Your task to perform on an android device: open a bookmark in the chrome app Image 0: 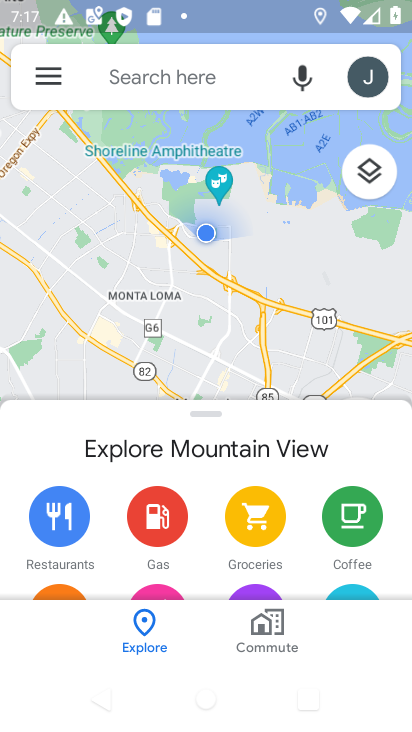
Step 0: press back button
Your task to perform on an android device: open a bookmark in the chrome app Image 1: 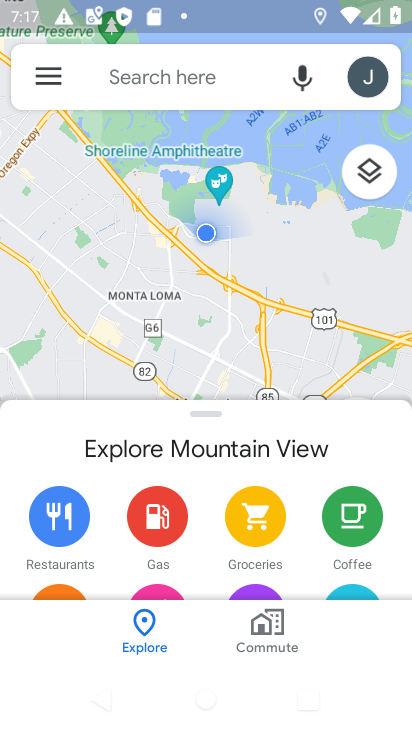
Step 1: press home button
Your task to perform on an android device: open a bookmark in the chrome app Image 2: 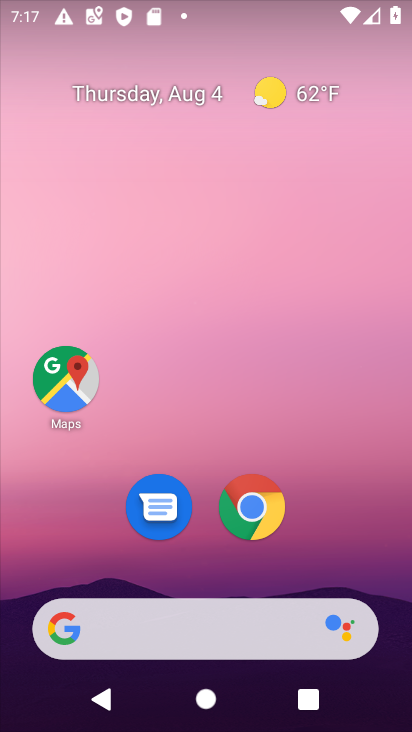
Step 2: drag from (382, 604) to (211, 23)
Your task to perform on an android device: open a bookmark in the chrome app Image 3: 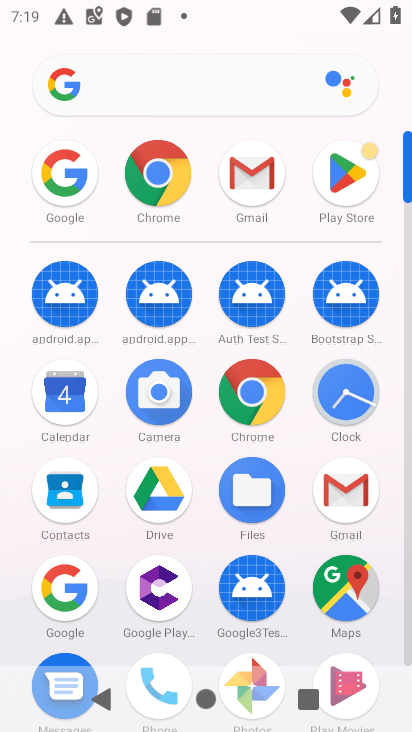
Step 3: click (242, 402)
Your task to perform on an android device: open a bookmark in the chrome app Image 4: 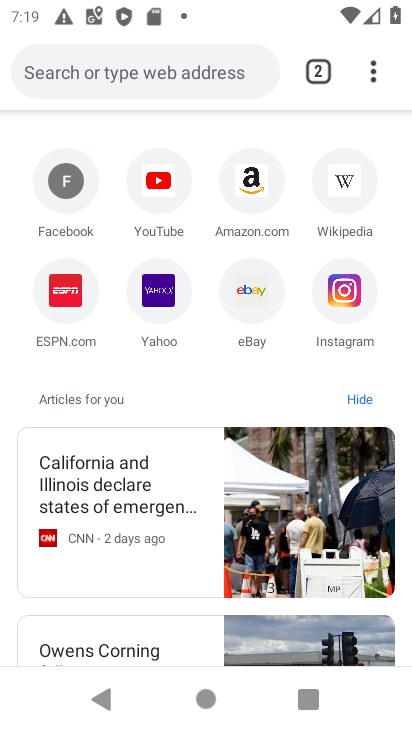
Step 4: click (378, 66)
Your task to perform on an android device: open a bookmark in the chrome app Image 5: 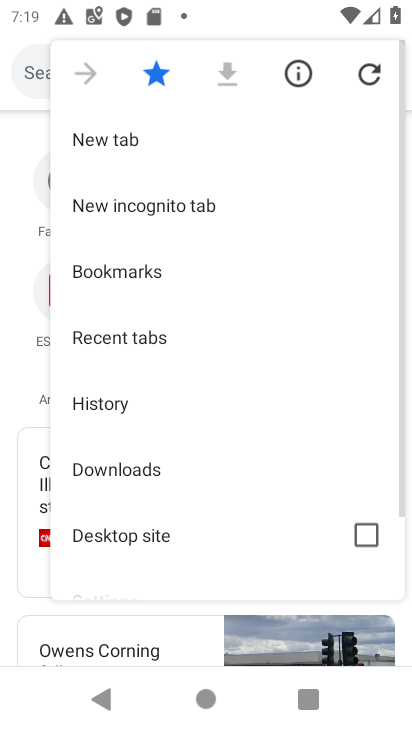
Step 5: click (112, 286)
Your task to perform on an android device: open a bookmark in the chrome app Image 6: 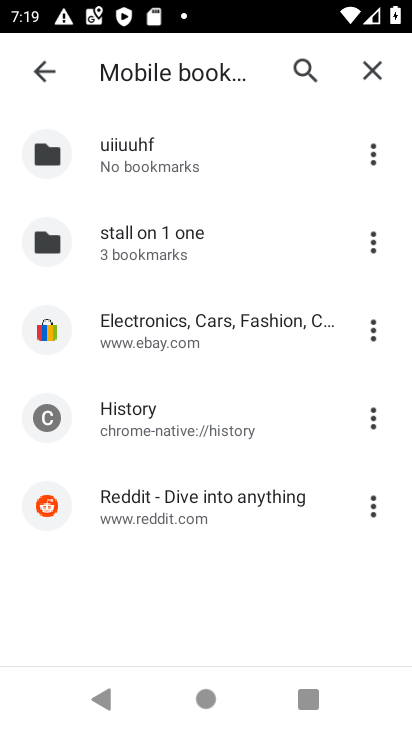
Step 6: task complete